Your task to perform on an android device: find photos in the google photos app Image 0: 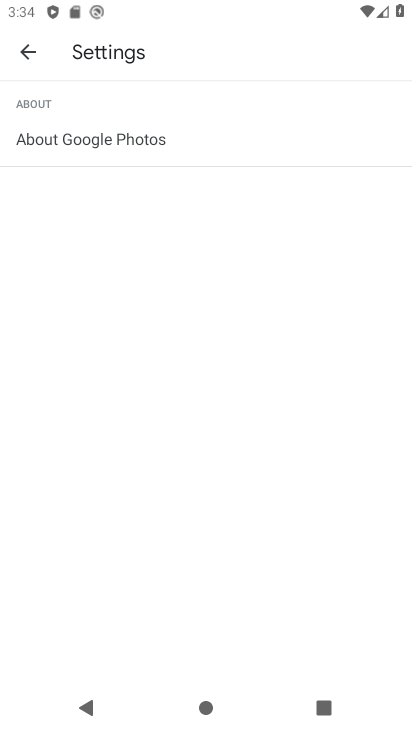
Step 0: click (30, 66)
Your task to perform on an android device: find photos in the google photos app Image 1: 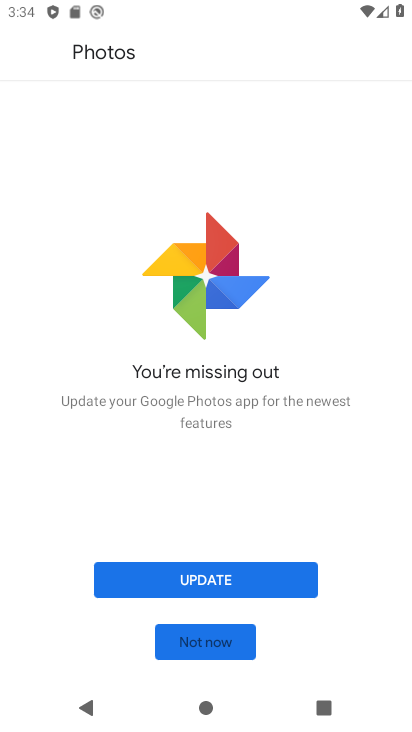
Step 1: click (209, 644)
Your task to perform on an android device: find photos in the google photos app Image 2: 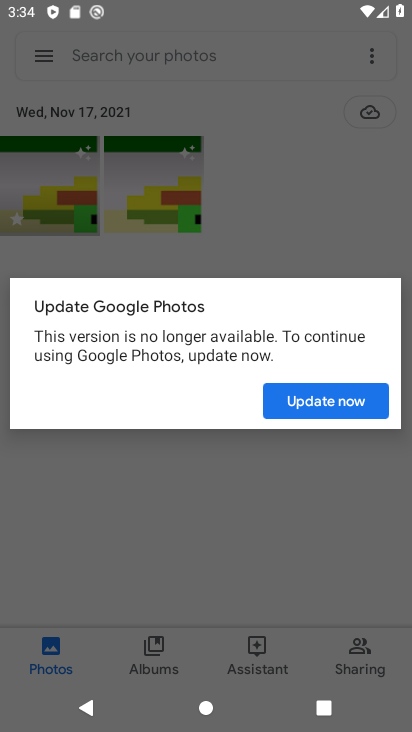
Step 2: click (328, 413)
Your task to perform on an android device: find photos in the google photos app Image 3: 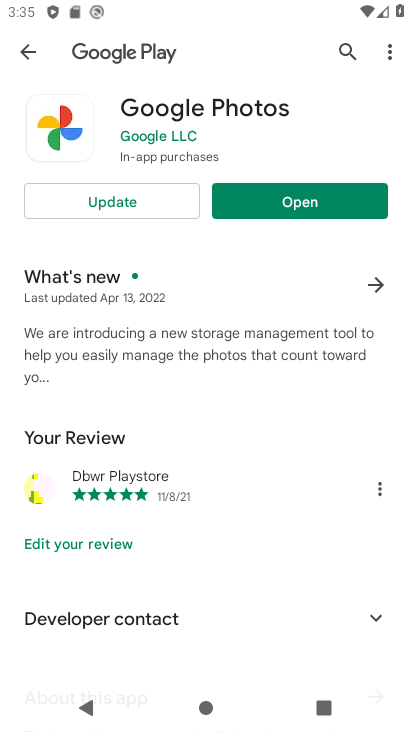
Step 3: click (245, 215)
Your task to perform on an android device: find photos in the google photos app Image 4: 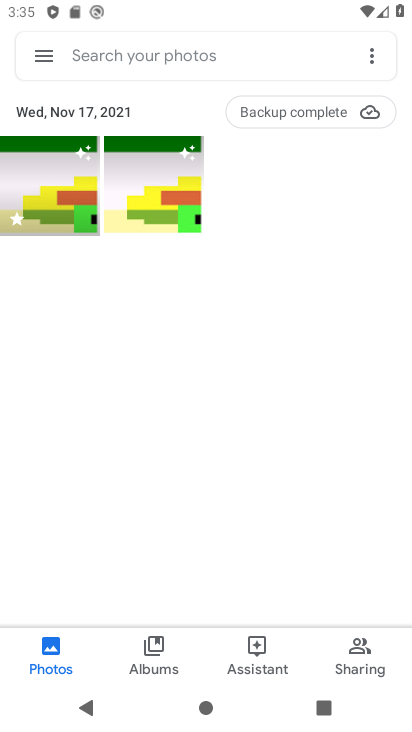
Step 4: task complete